Your task to perform on an android device: turn pop-ups off in chrome Image 0: 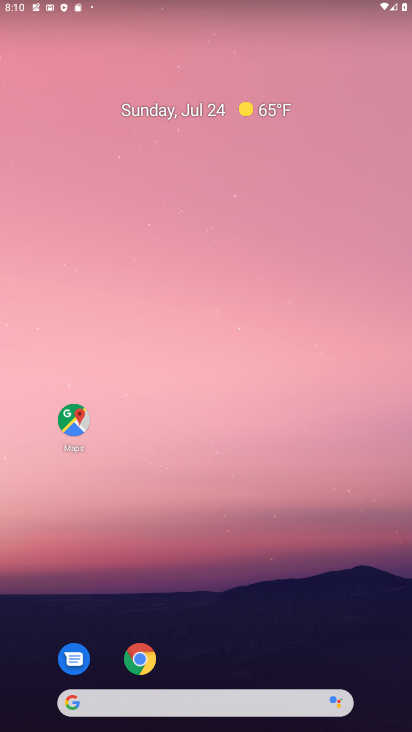
Step 0: click (141, 665)
Your task to perform on an android device: turn pop-ups off in chrome Image 1: 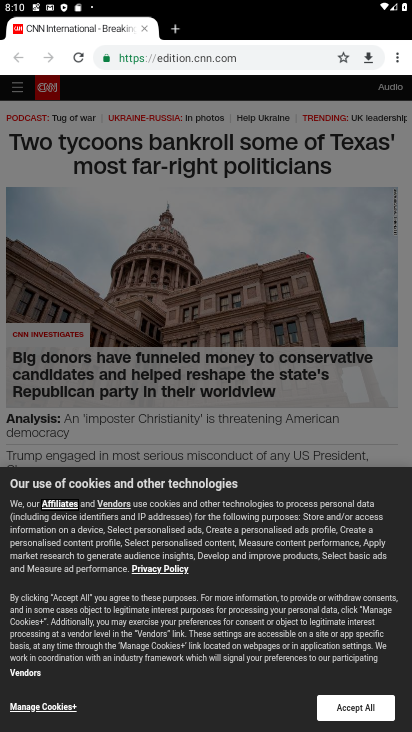
Step 1: click (396, 61)
Your task to perform on an android device: turn pop-ups off in chrome Image 2: 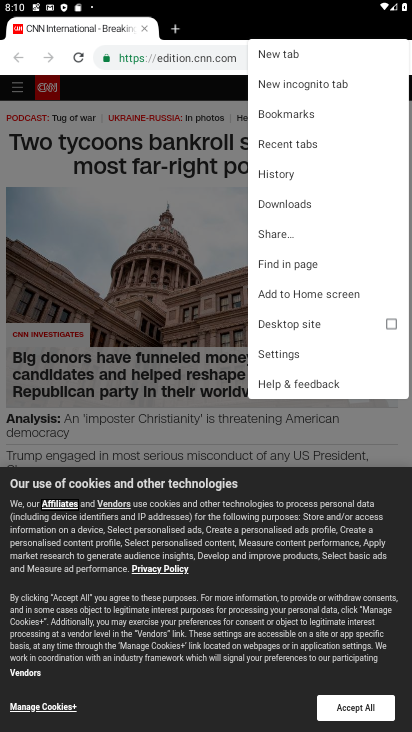
Step 2: click (285, 358)
Your task to perform on an android device: turn pop-ups off in chrome Image 3: 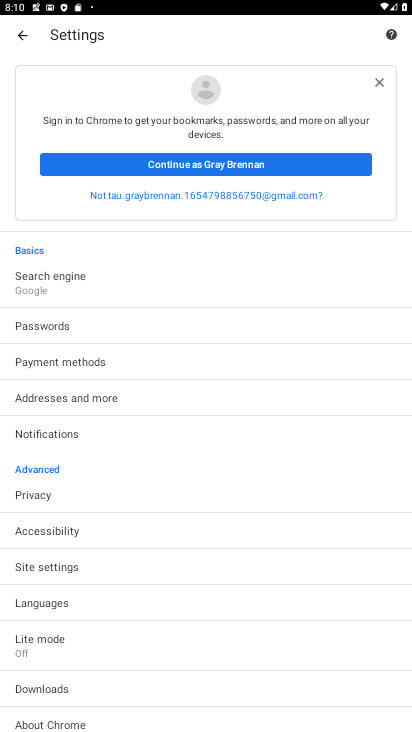
Step 3: click (54, 566)
Your task to perform on an android device: turn pop-ups off in chrome Image 4: 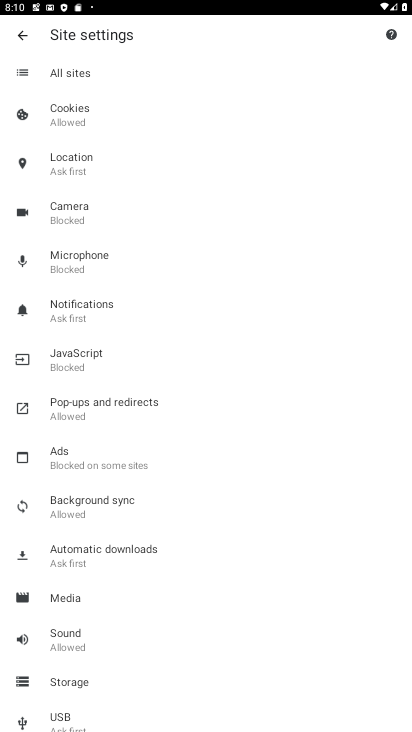
Step 4: click (53, 395)
Your task to perform on an android device: turn pop-ups off in chrome Image 5: 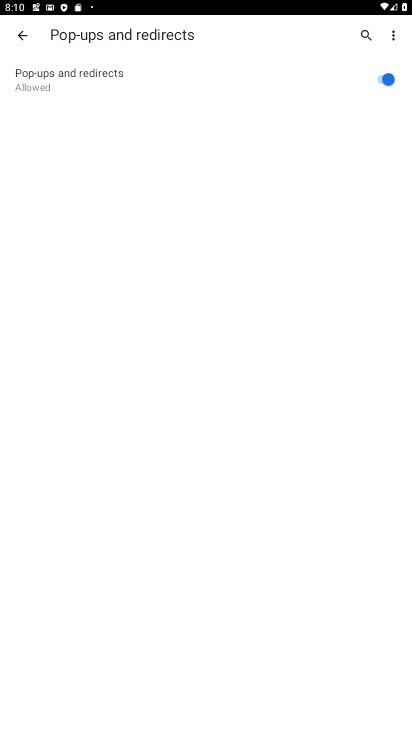
Step 5: click (386, 88)
Your task to perform on an android device: turn pop-ups off in chrome Image 6: 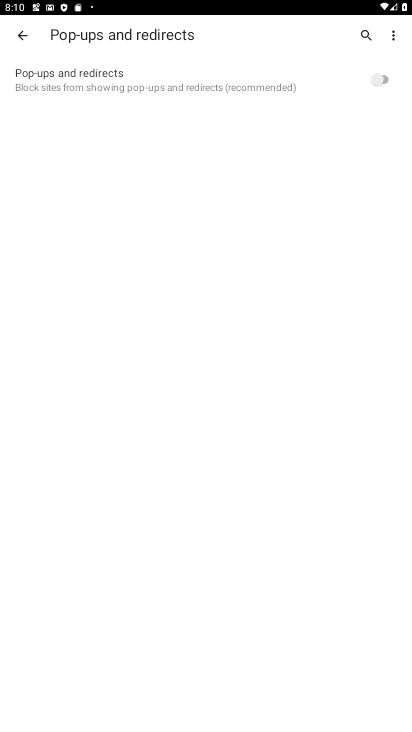
Step 6: task complete